Your task to perform on an android device: Open network settings Image 0: 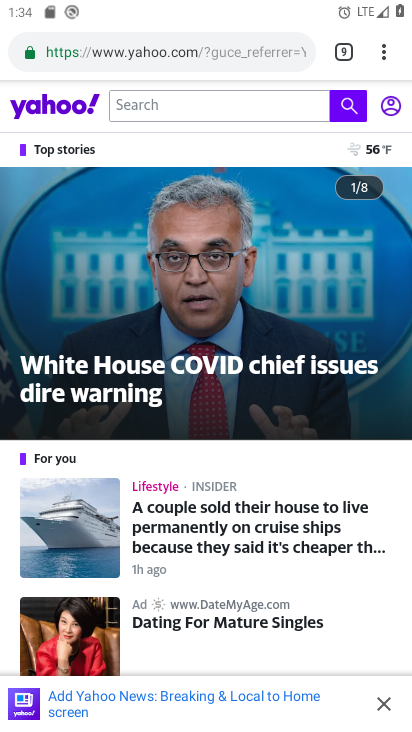
Step 0: press home button
Your task to perform on an android device: Open network settings Image 1: 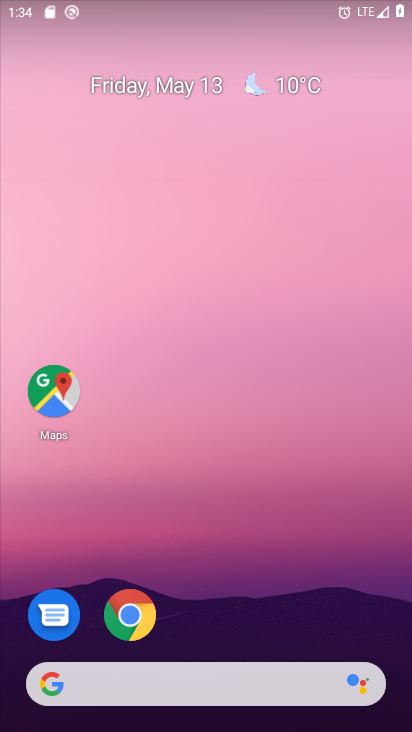
Step 1: drag from (260, 484) to (292, 46)
Your task to perform on an android device: Open network settings Image 2: 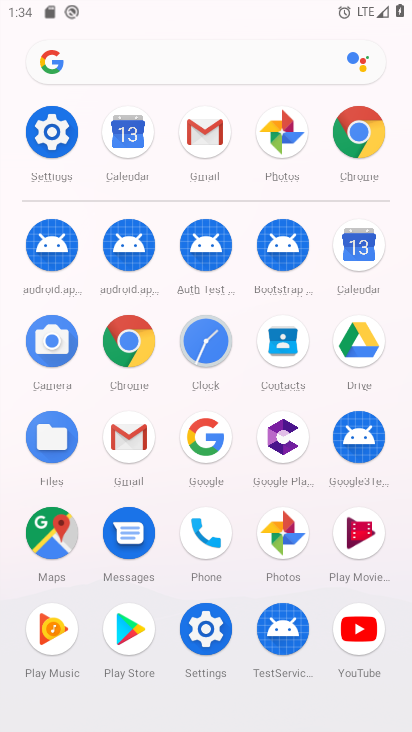
Step 2: click (56, 116)
Your task to perform on an android device: Open network settings Image 3: 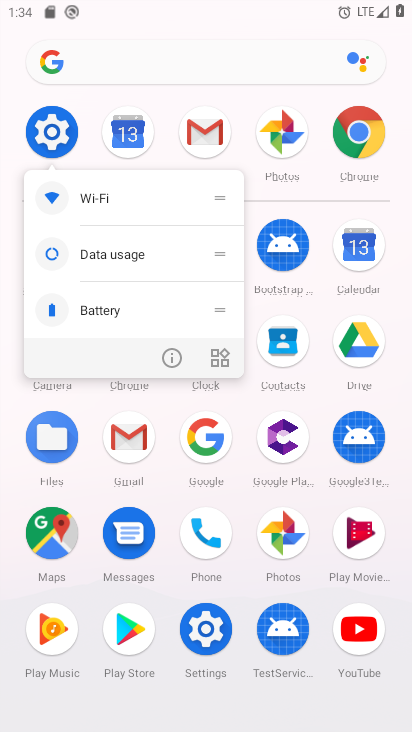
Step 3: click (51, 119)
Your task to perform on an android device: Open network settings Image 4: 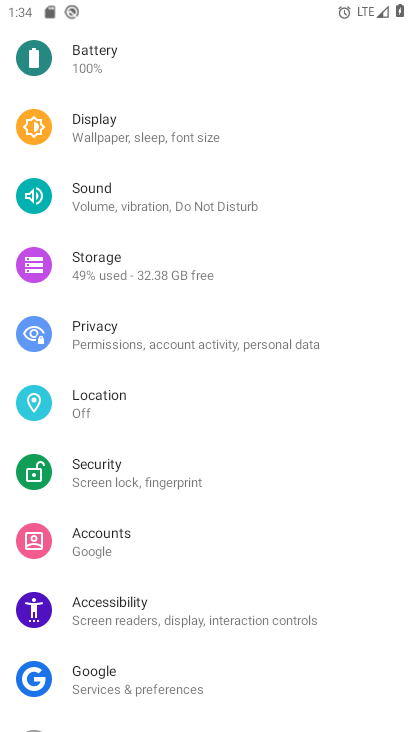
Step 4: drag from (214, 176) to (256, 387)
Your task to perform on an android device: Open network settings Image 5: 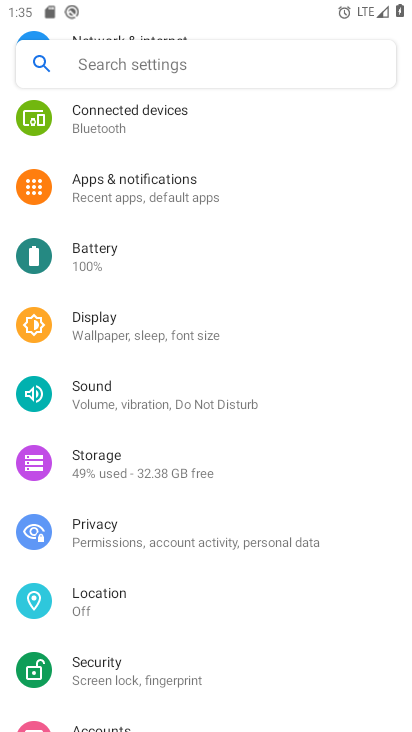
Step 5: drag from (260, 180) to (276, 431)
Your task to perform on an android device: Open network settings Image 6: 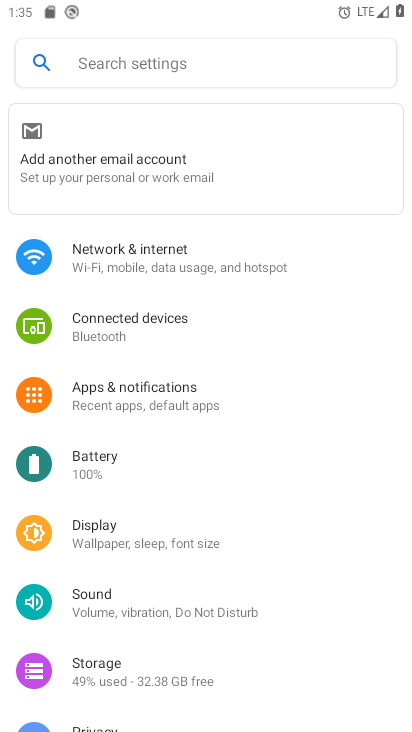
Step 6: click (187, 258)
Your task to perform on an android device: Open network settings Image 7: 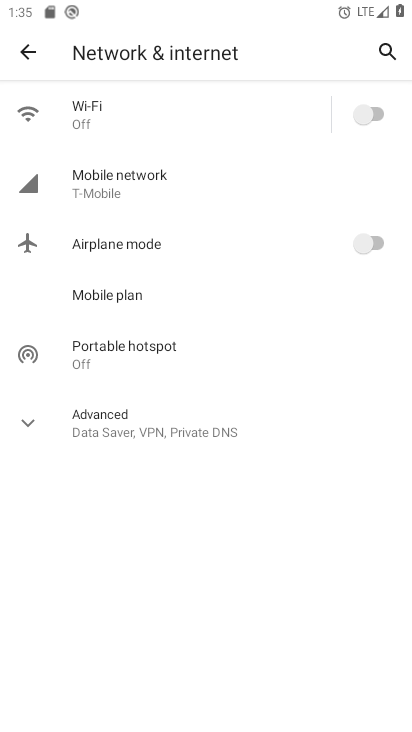
Step 7: task complete